Your task to perform on an android device: Check the weather Image 0: 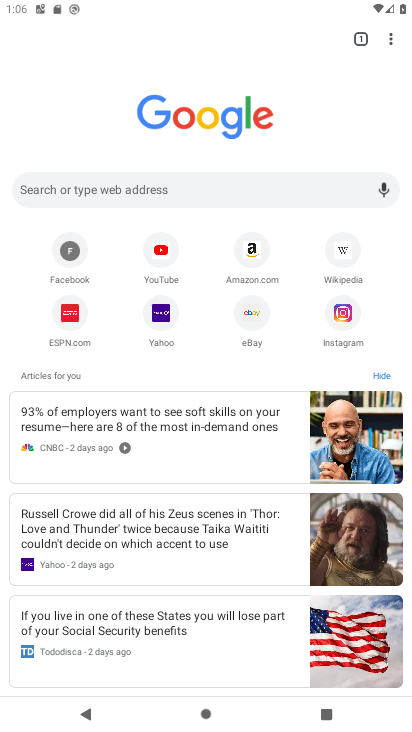
Step 0: press home button
Your task to perform on an android device: Check the weather Image 1: 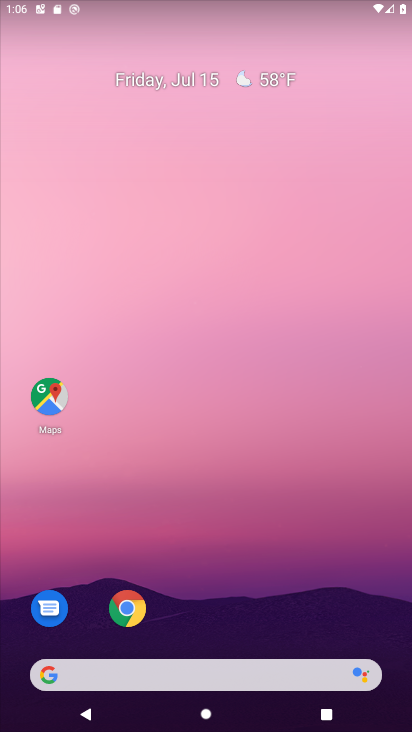
Step 1: click (259, 89)
Your task to perform on an android device: Check the weather Image 2: 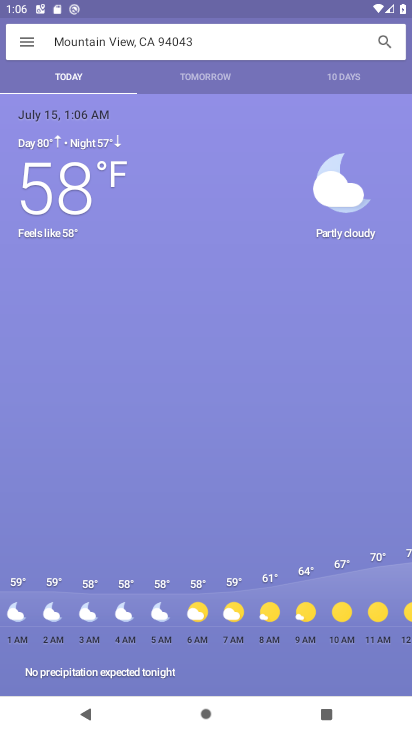
Step 2: task complete